Your task to perform on an android device: move an email to a new category in the gmail app Image 0: 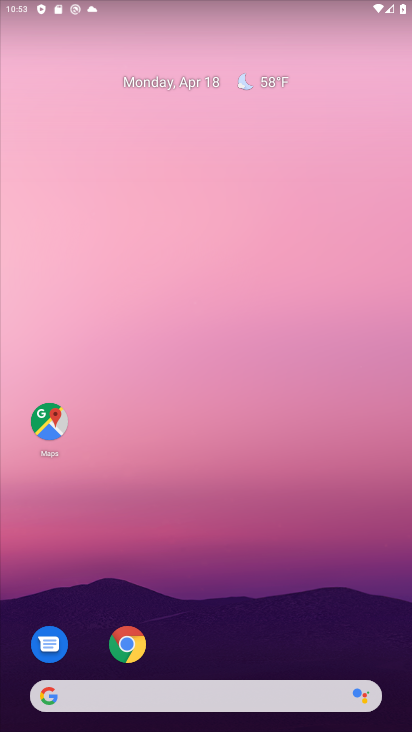
Step 0: drag from (193, 661) to (189, 139)
Your task to perform on an android device: move an email to a new category in the gmail app Image 1: 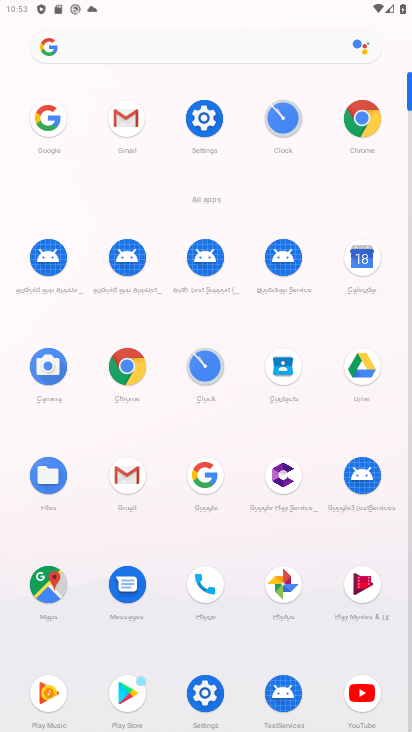
Step 1: drag from (145, 578) to (156, 325)
Your task to perform on an android device: move an email to a new category in the gmail app Image 2: 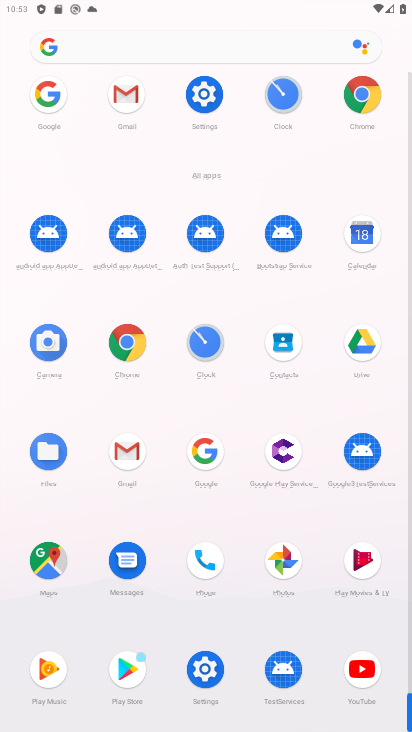
Step 2: click (128, 451)
Your task to perform on an android device: move an email to a new category in the gmail app Image 3: 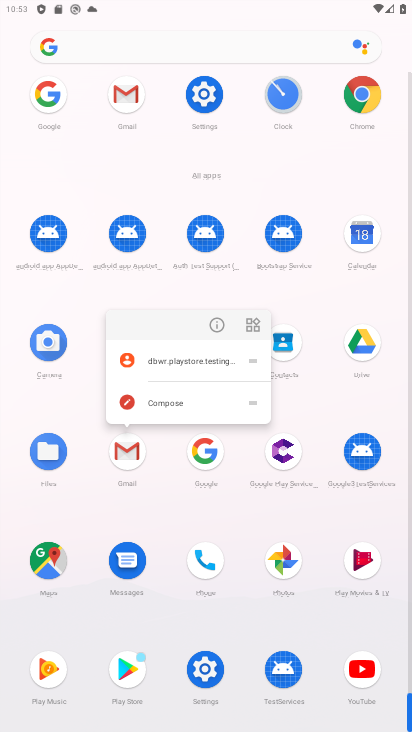
Step 3: click (218, 320)
Your task to perform on an android device: move an email to a new category in the gmail app Image 4: 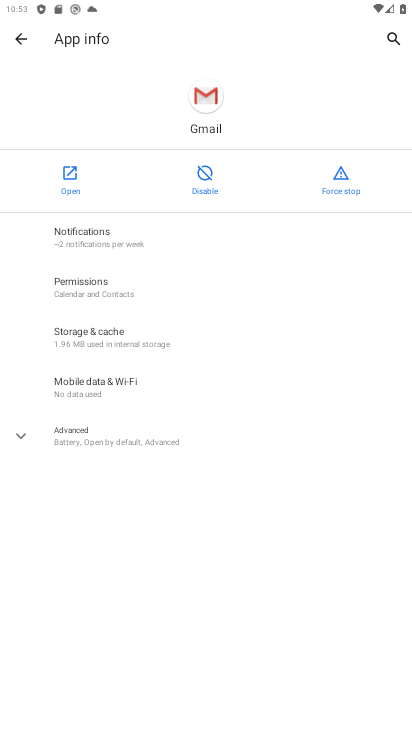
Step 4: click (63, 188)
Your task to perform on an android device: move an email to a new category in the gmail app Image 5: 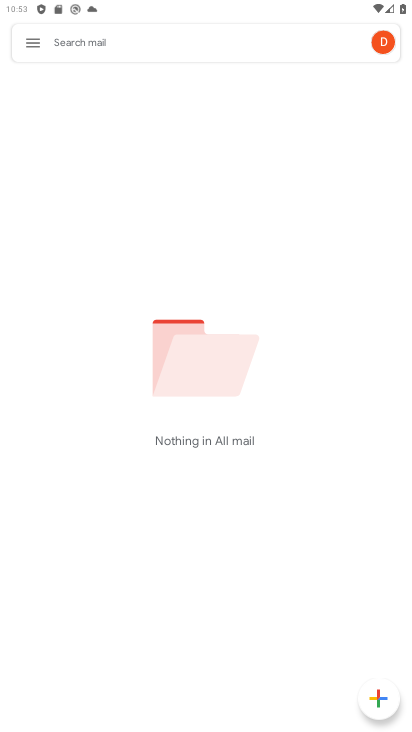
Step 5: click (23, 48)
Your task to perform on an android device: move an email to a new category in the gmail app Image 6: 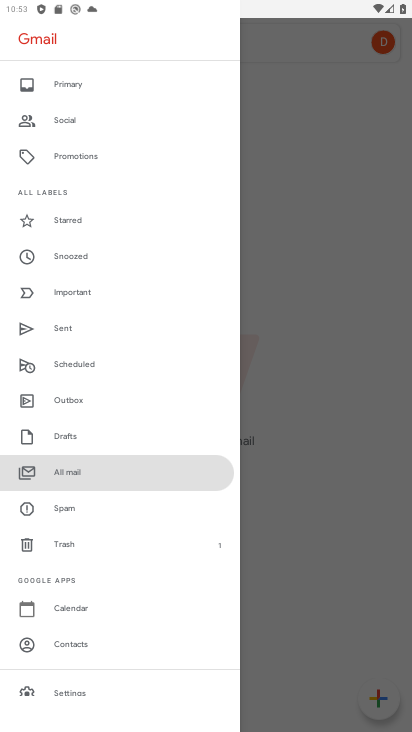
Step 6: click (119, 471)
Your task to perform on an android device: move an email to a new category in the gmail app Image 7: 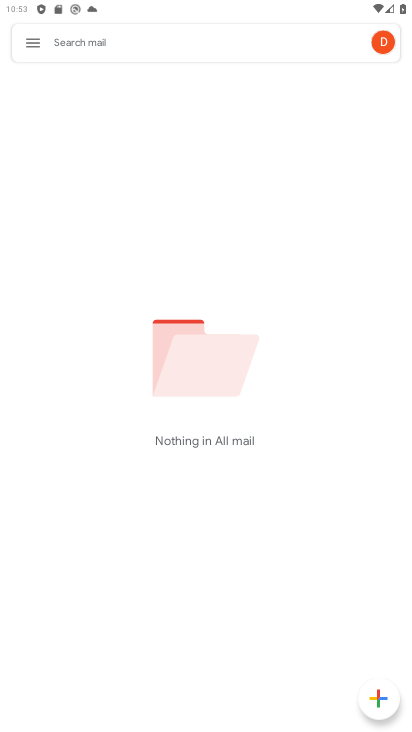
Step 7: task complete